Your task to perform on an android device: Open Android settings Image 0: 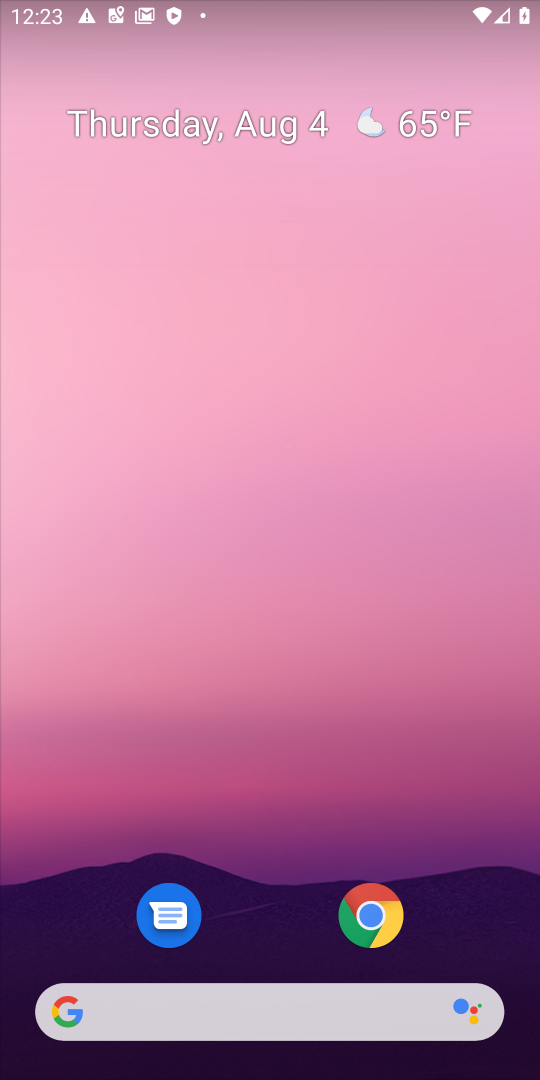
Step 0: click (238, 61)
Your task to perform on an android device: Open Android settings Image 1: 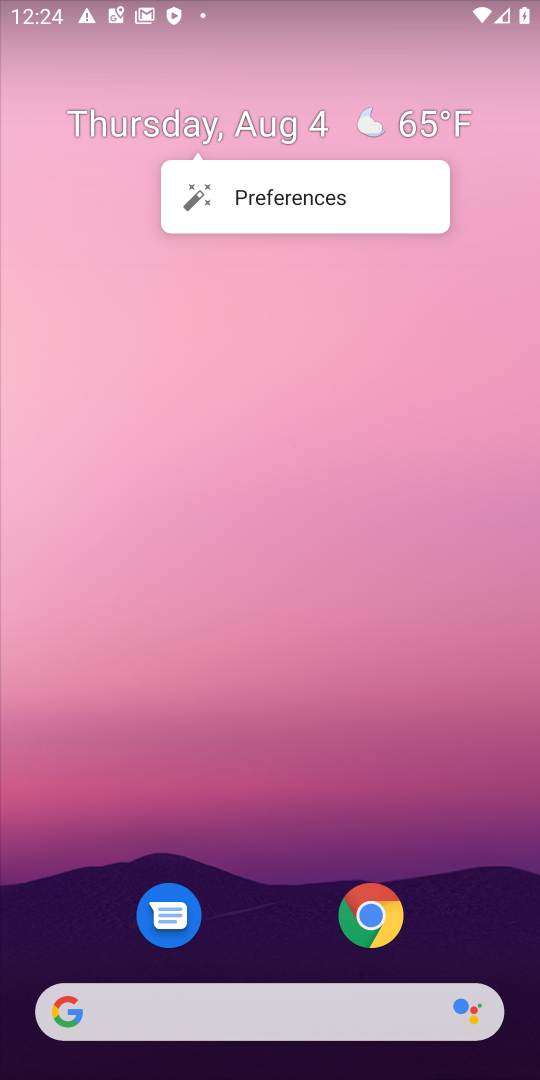
Step 1: drag from (277, 877) to (348, 25)
Your task to perform on an android device: Open Android settings Image 2: 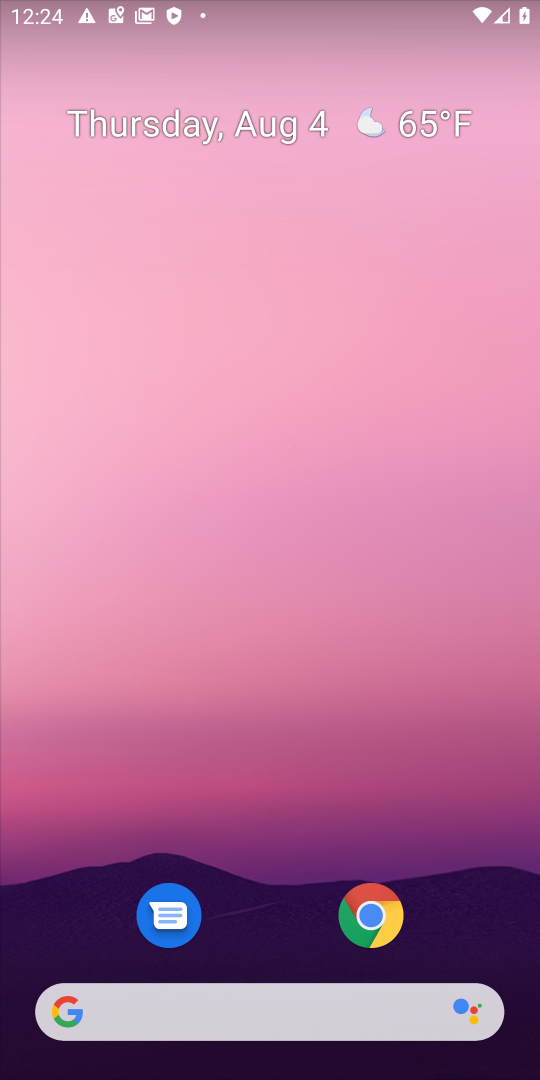
Step 2: drag from (267, 786) to (273, 210)
Your task to perform on an android device: Open Android settings Image 3: 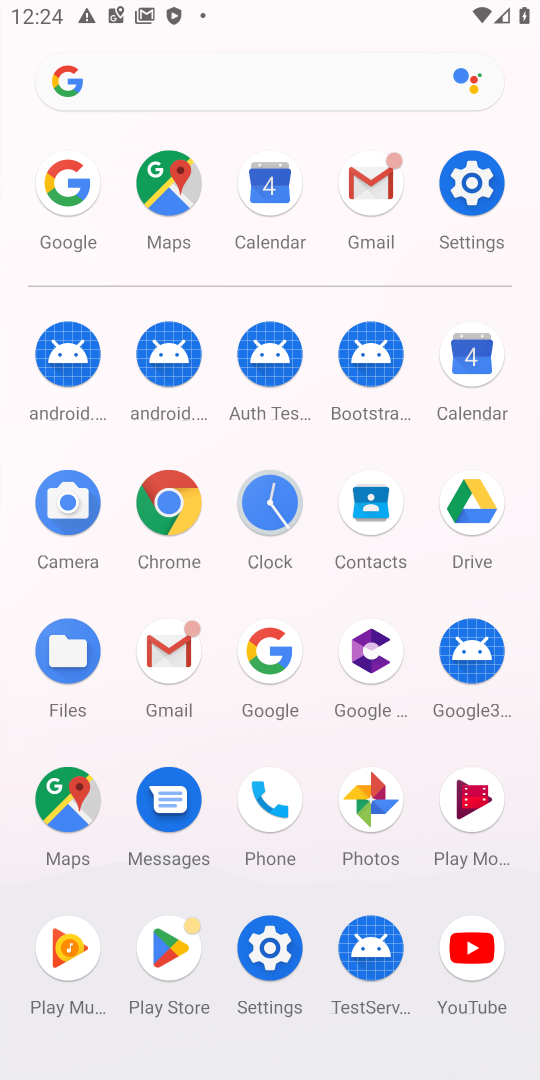
Step 3: click (474, 195)
Your task to perform on an android device: Open Android settings Image 4: 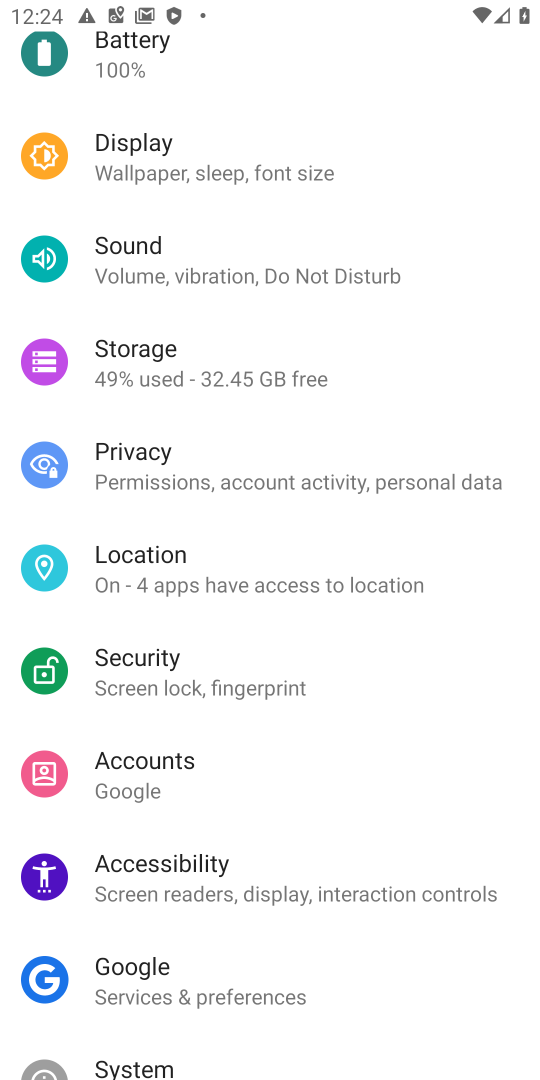
Step 4: drag from (296, 994) to (177, 263)
Your task to perform on an android device: Open Android settings Image 5: 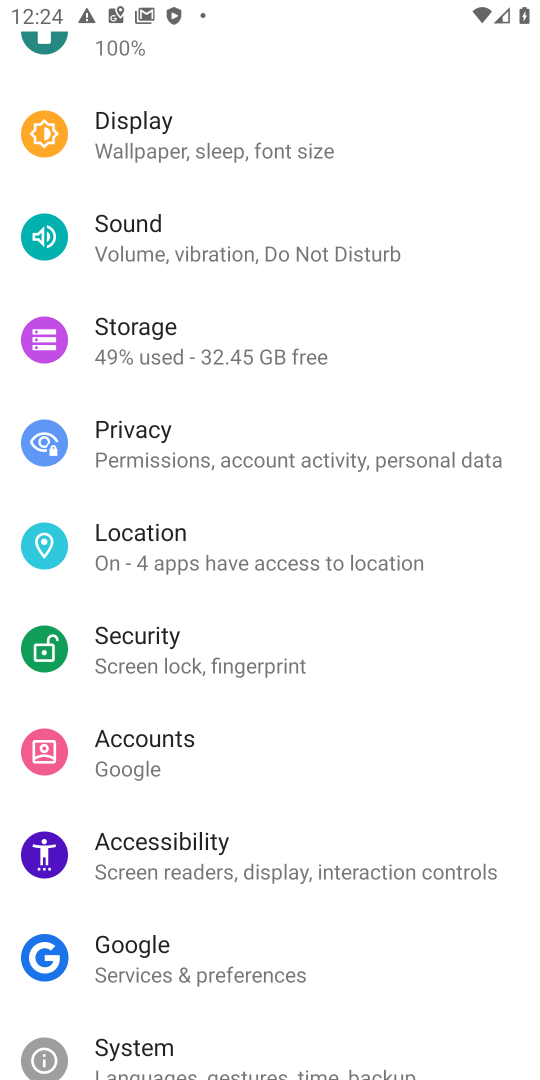
Step 5: drag from (175, 946) to (175, 445)
Your task to perform on an android device: Open Android settings Image 6: 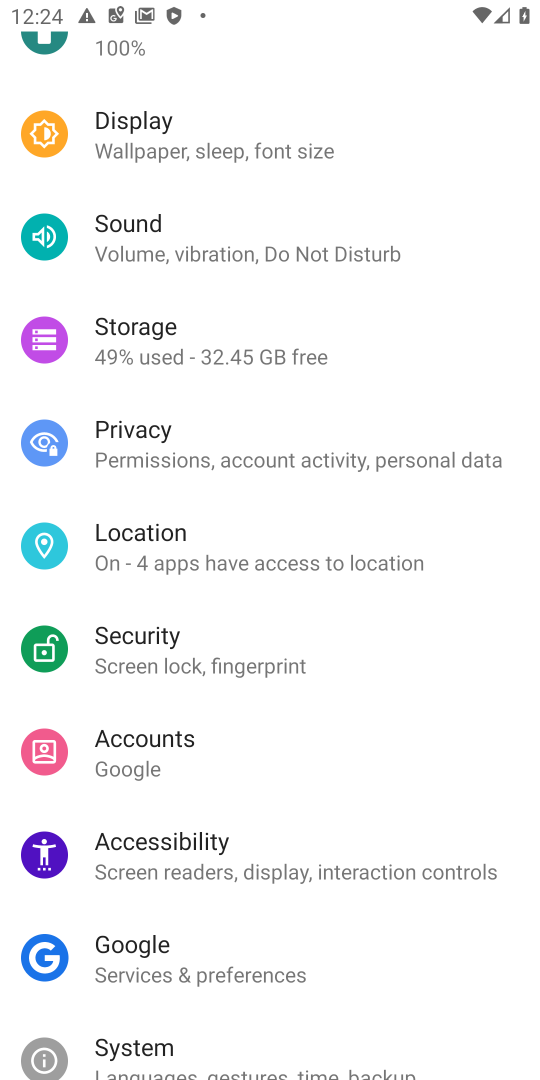
Step 6: drag from (249, 784) to (226, 485)
Your task to perform on an android device: Open Android settings Image 7: 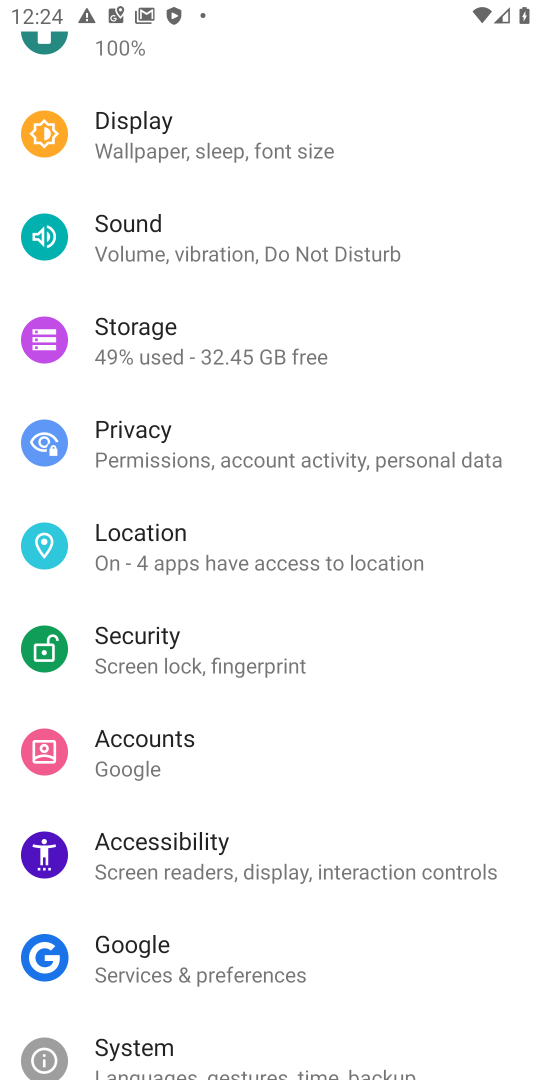
Step 7: click (229, 400)
Your task to perform on an android device: Open Android settings Image 8: 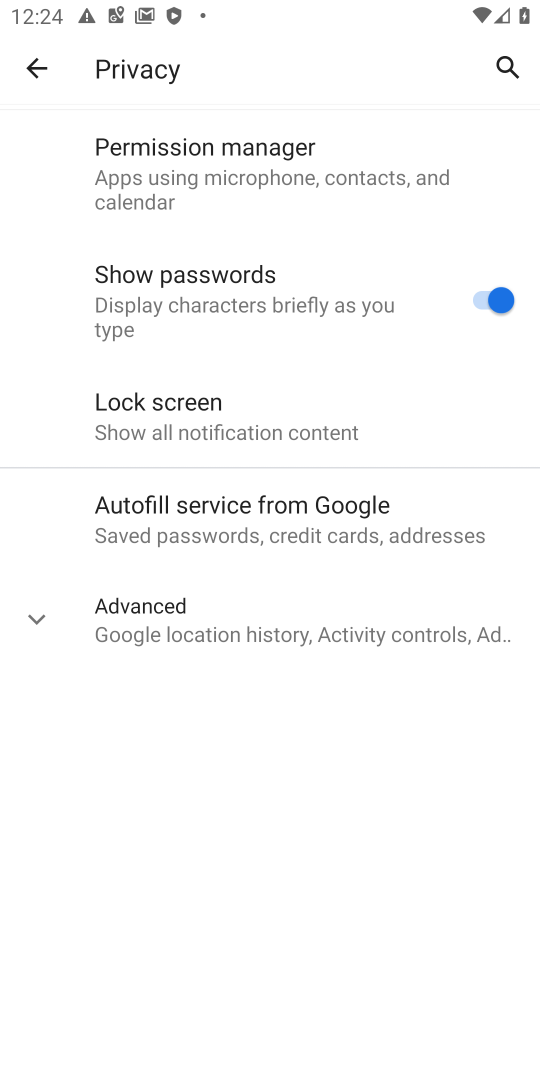
Step 8: click (46, 65)
Your task to perform on an android device: Open Android settings Image 9: 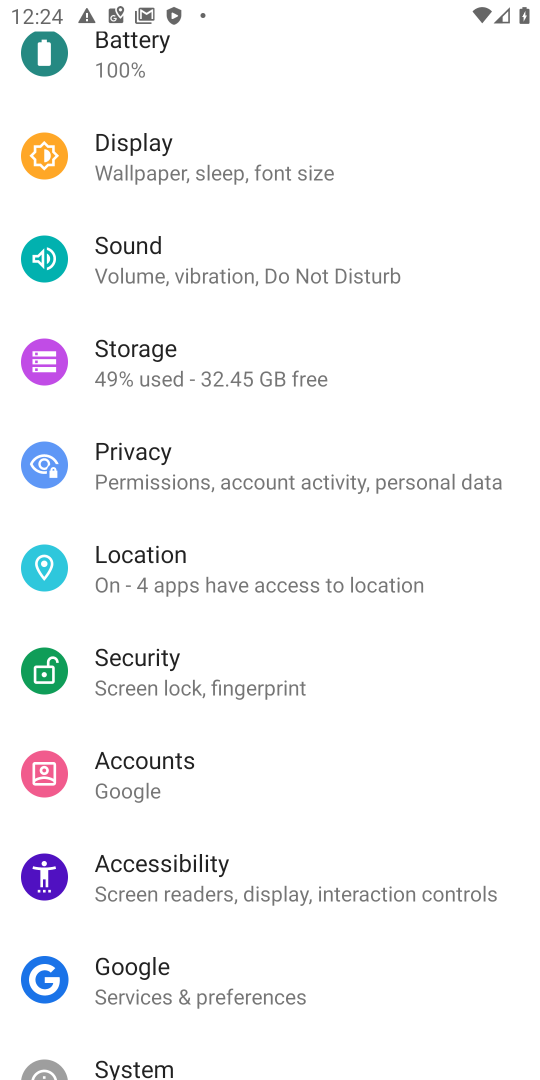
Step 9: drag from (259, 1008) to (220, 452)
Your task to perform on an android device: Open Android settings Image 10: 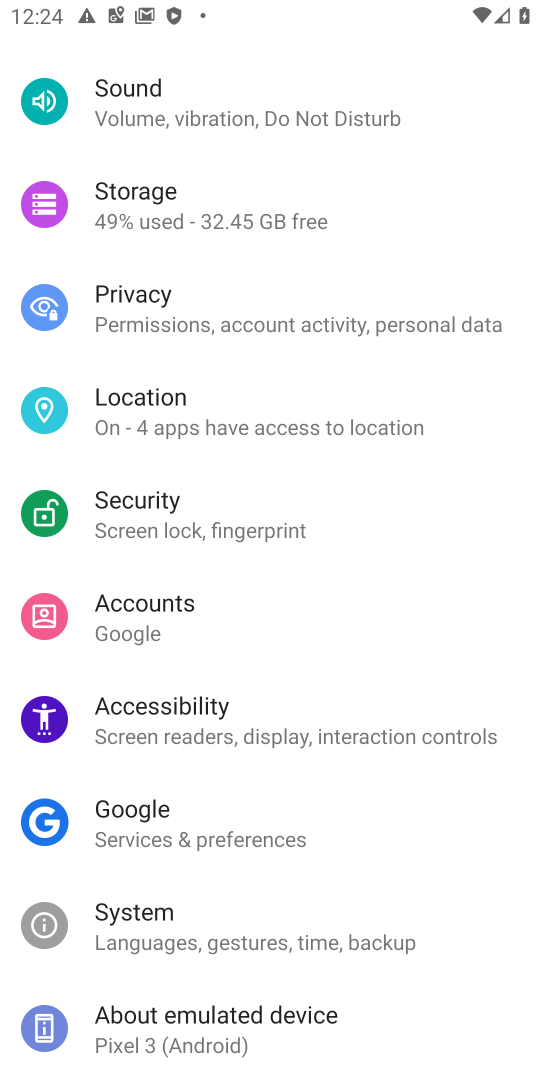
Step 10: click (113, 1030)
Your task to perform on an android device: Open Android settings Image 11: 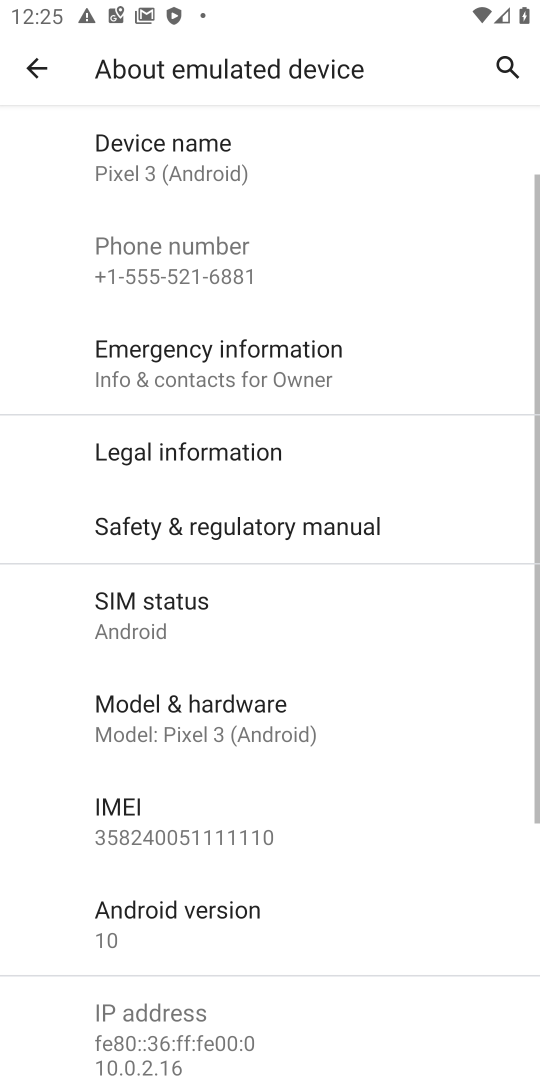
Step 11: click (208, 940)
Your task to perform on an android device: Open Android settings Image 12: 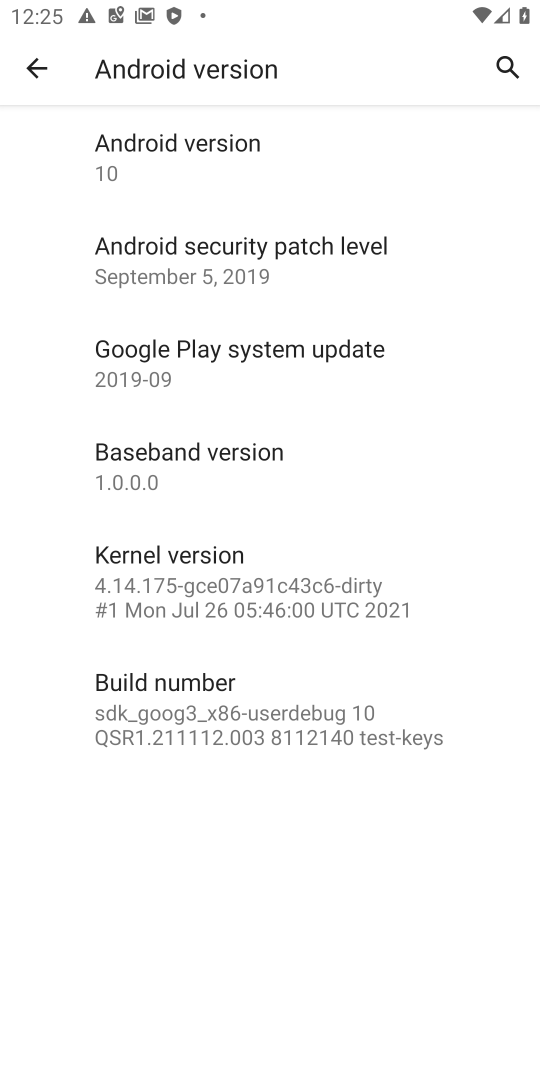
Step 12: task complete